Your task to perform on an android device: turn off notifications settings in the gmail app Image 0: 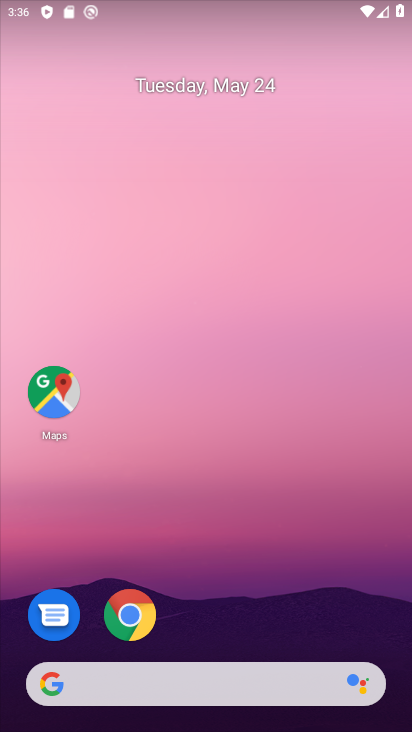
Step 0: drag from (209, 602) to (293, 157)
Your task to perform on an android device: turn off notifications settings in the gmail app Image 1: 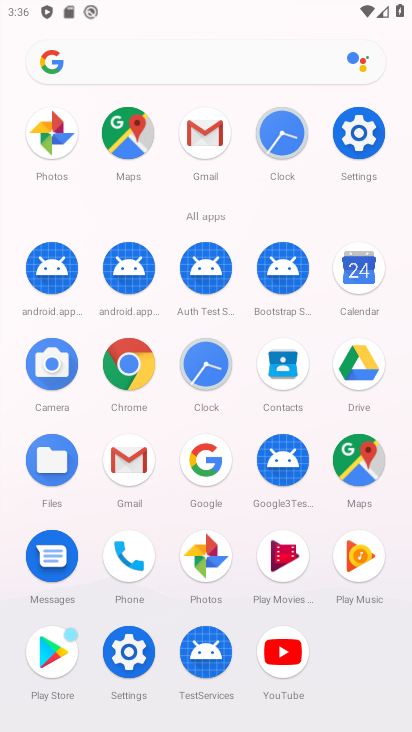
Step 1: click (119, 472)
Your task to perform on an android device: turn off notifications settings in the gmail app Image 2: 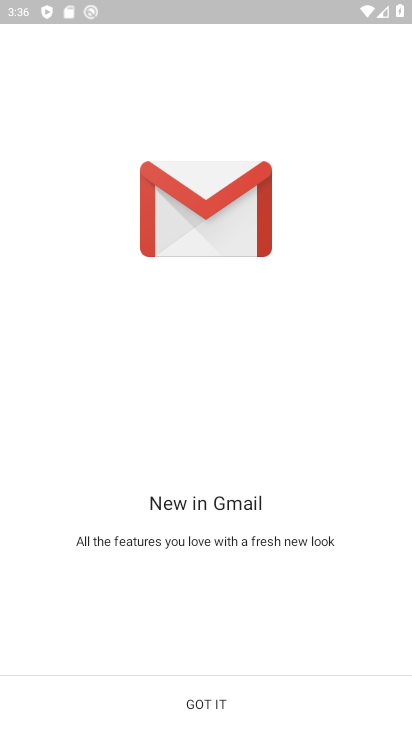
Step 2: click (165, 710)
Your task to perform on an android device: turn off notifications settings in the gmail app Image 3: 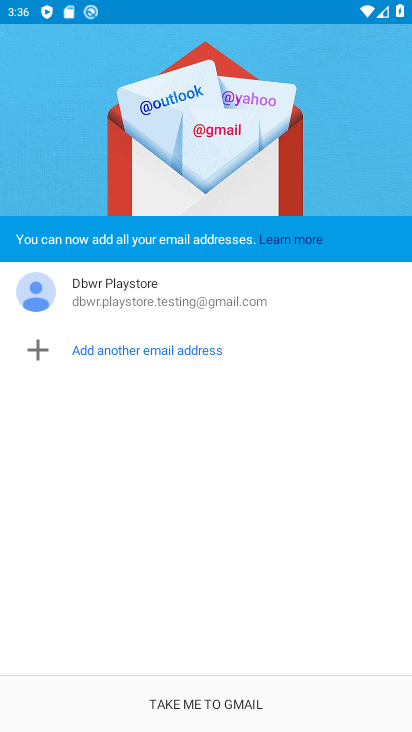
Step 3: click (213, 703)
Your task to perform on an android device: turn off notifications settings in the gmail app Image 4: 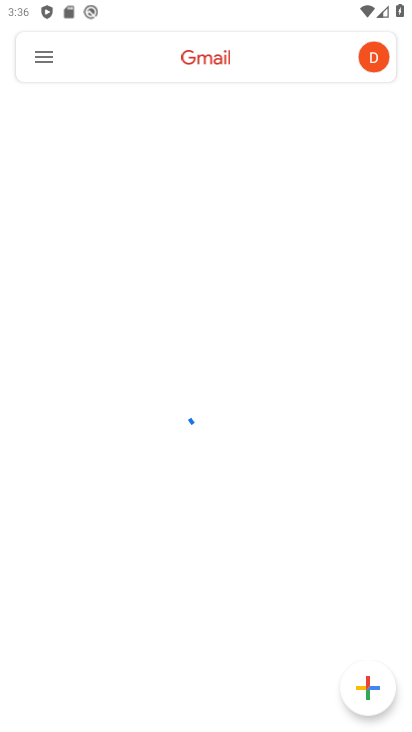
Step 4: click (44, 67)
Your task to perform on an android device: turn off notifications settings in the gmail app Image 5: 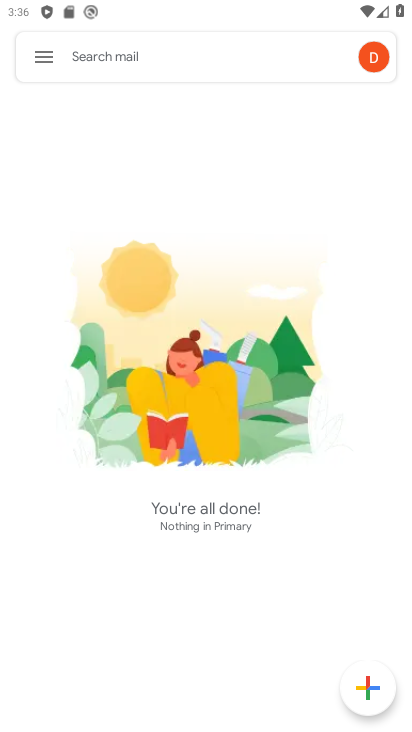
Step 5: click (37, 58)
Your task to perform on an android device: turn off notifications settings in the gmail app Image 6: 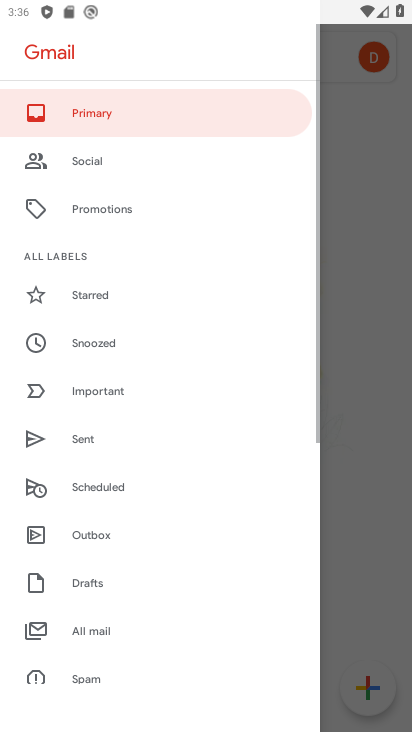
Step 6: drag from (136, 683) to (223, 250)
Your task to perform on an android device: turn off notifications settings in the gmail app Image 7: 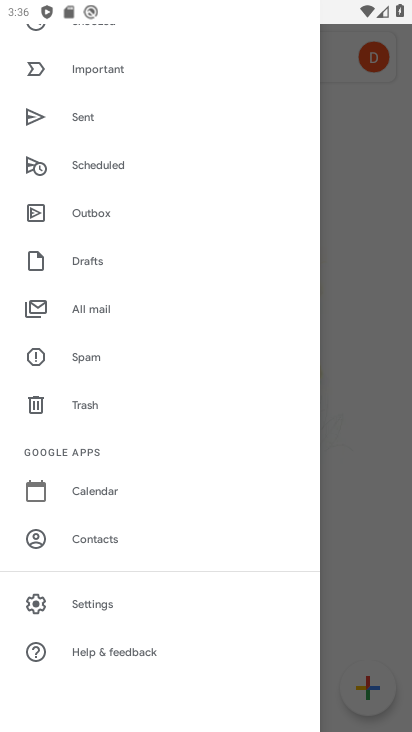
Step 7: click (110, 612)
Your task to perform on an android device: turn off notifications settings in the gmail app Image 8: 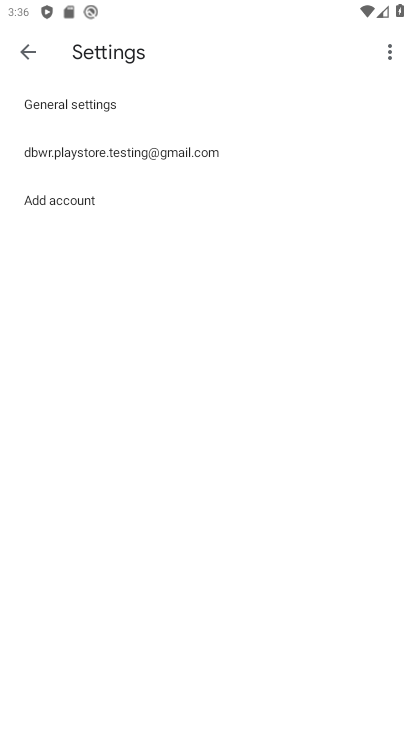
Step 8: click (214, 159)
Your task to perform on an android device: turn off notifications settings in the gmail app Image 9: 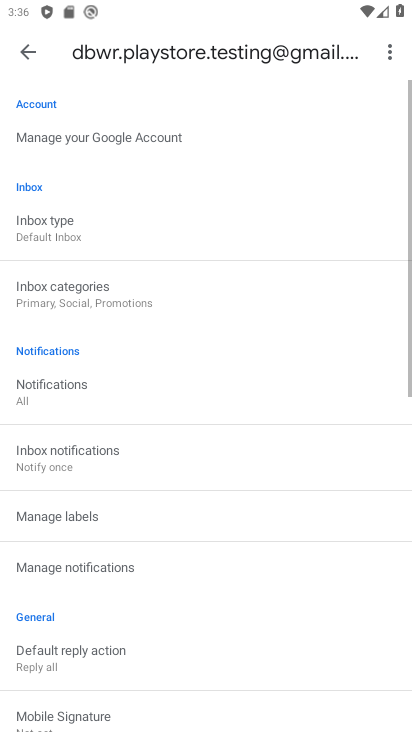
Step 9: drag from (170, 572) to (263, 232)
Your task to perform on an android device: turn off notifications settings in the gmail app Image 10: 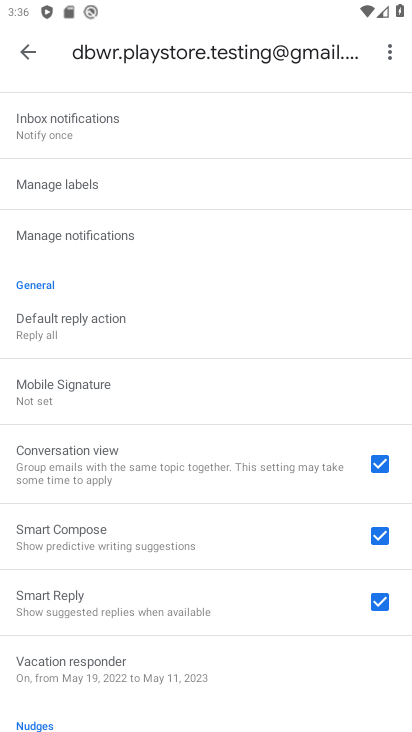
Step 10: click (142, 245)
Your task to perform on an android device: turn off notifications settings in the gmail app Image 11: 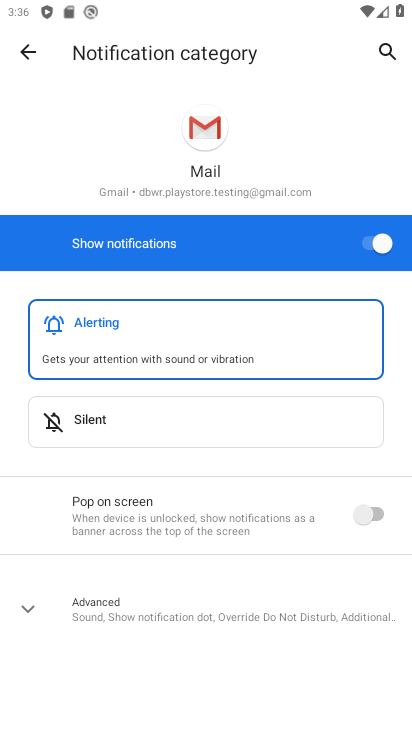
Step 11: click (364, 248)
Your task to perform on an android device: turn off notifications settings in the gmail app Image 12: 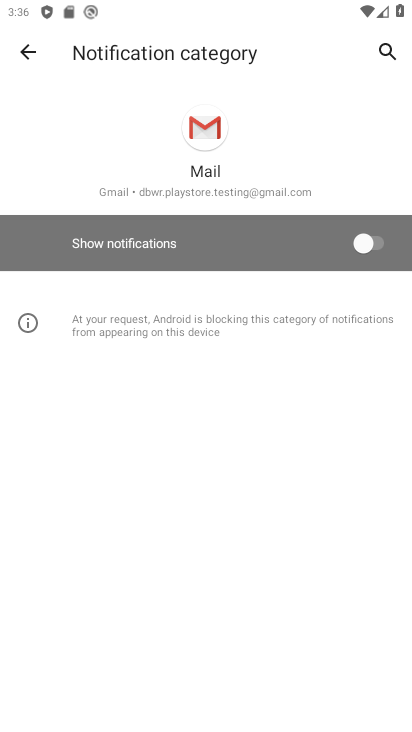
Step 12: task complete